Your task to perform on an android device: install app "Pinterest" Image 0: 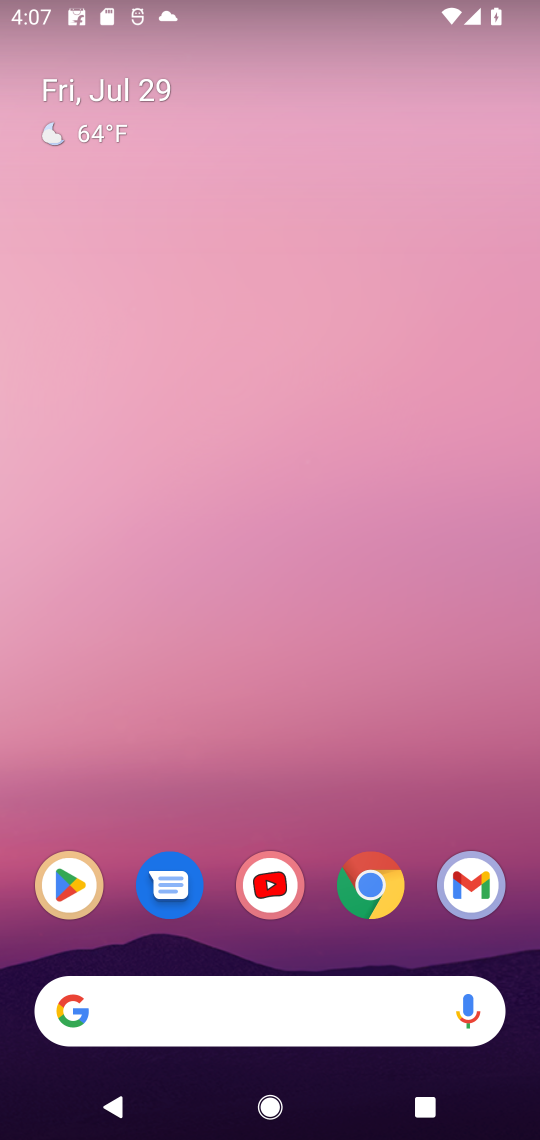
Step 0: click (69, 874)
Your task to perform on an android device: install app "Pinterest" Image 1: 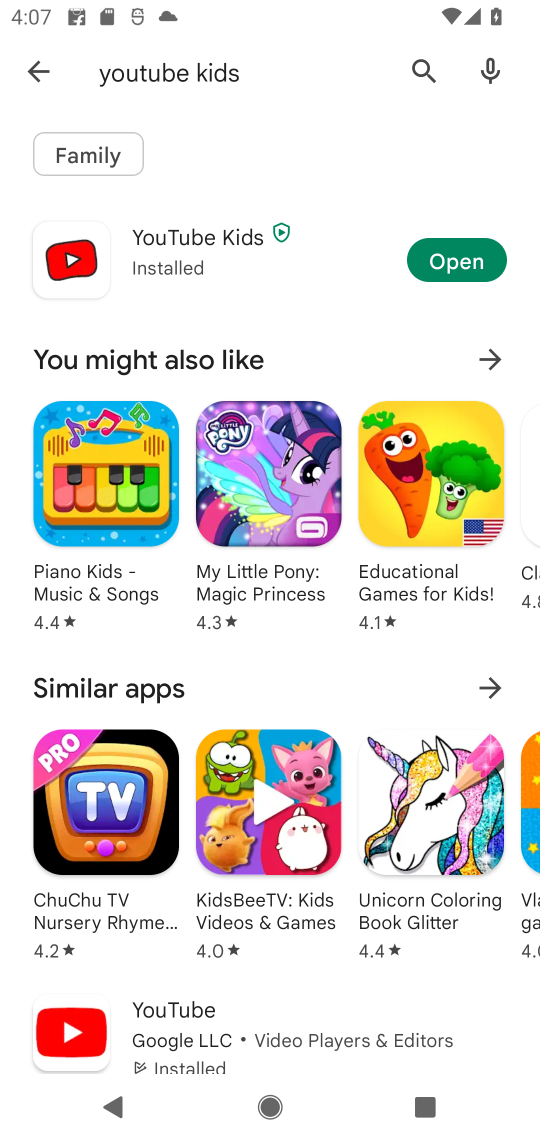
Step 1: click (420, 69)
Your task to perform on an android device: install app "Pinterest" Image 2: 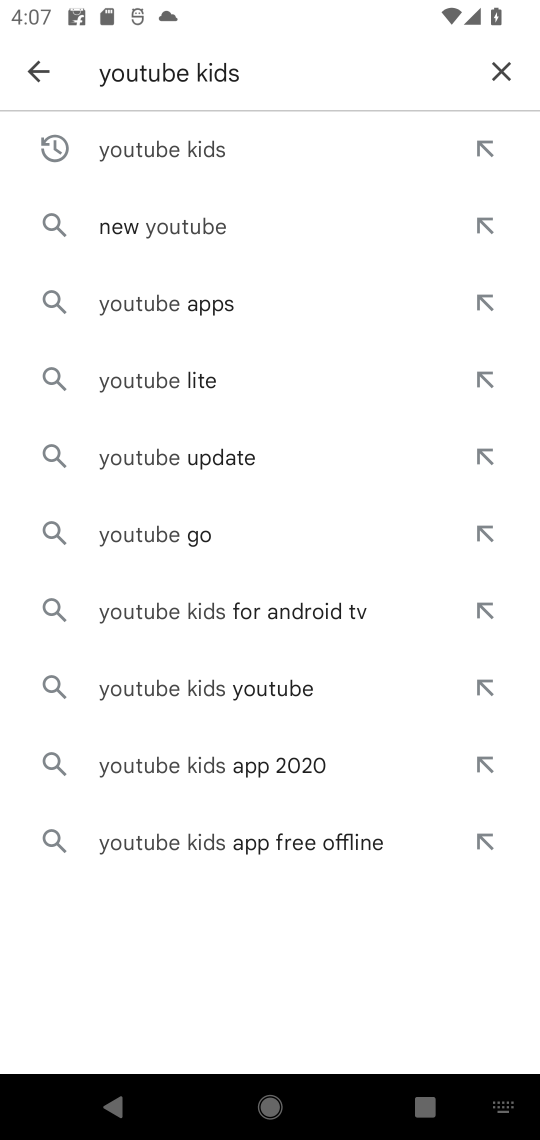
Step 2: click (498, 71)
Your task to perform on an android device: install app "Pinterest" Image 3: 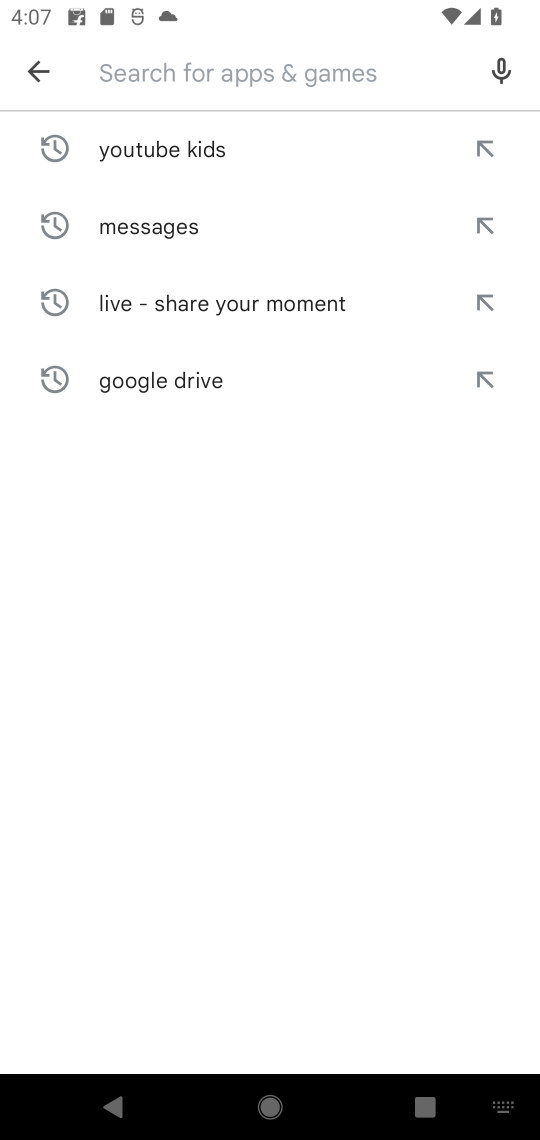
Step 3: type "Pinterest"
Your task to perform on an android device: install app "Pinterest" Image 4: 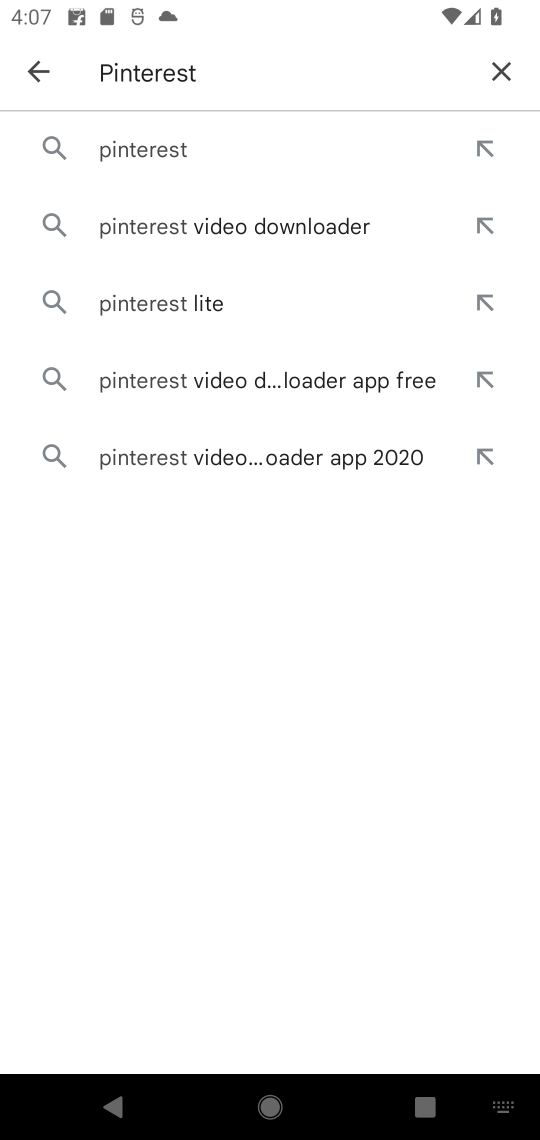
Step 4: click (126, 155)
Your task to perform on an android device: install app "Pinterest" Image 5: 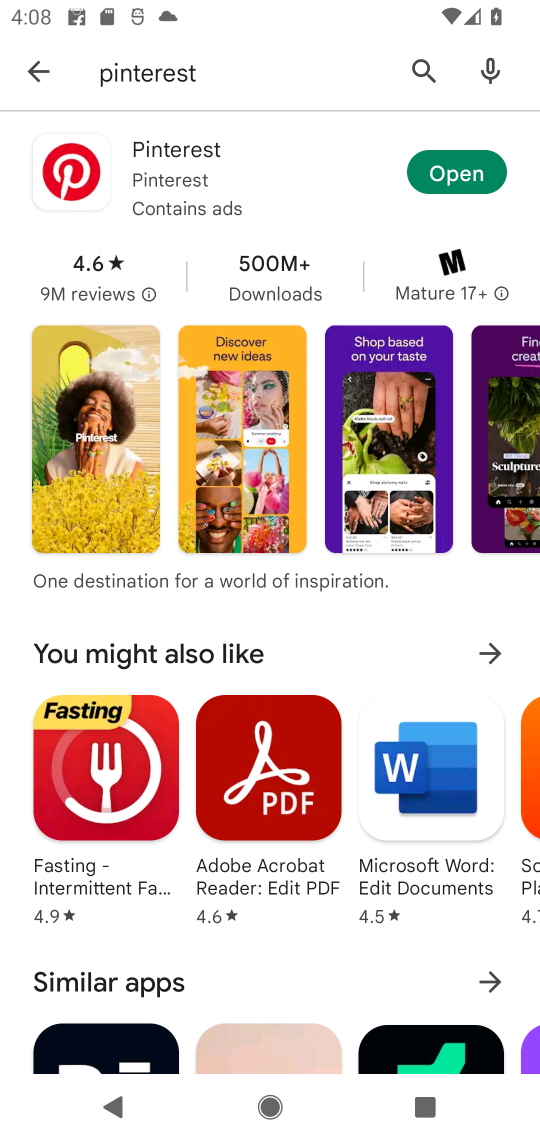
Step 5: task complete